Your task to perform on an android device: set default search engine in the chrome app Image 0: 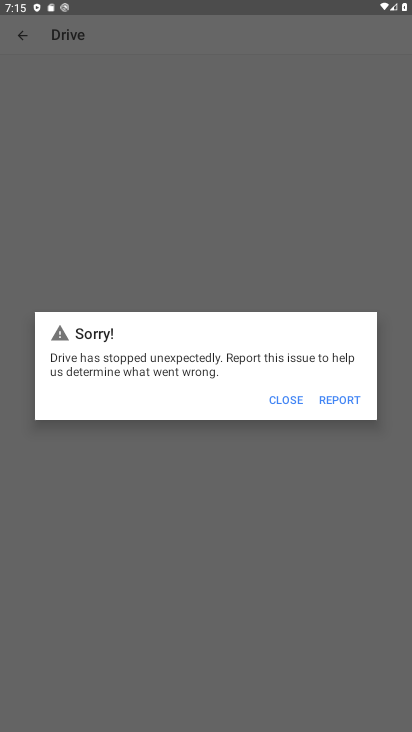
Step 0: press home button
Your task to perform on an android device: set default search engine in the chrome app Image 1: 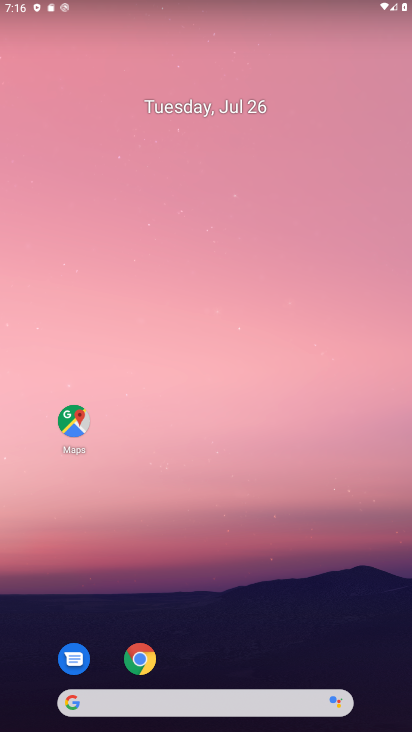
Step 1: click (149, 661)
Your task to perform on an android device: set default search engine in the chrome app Image 2: 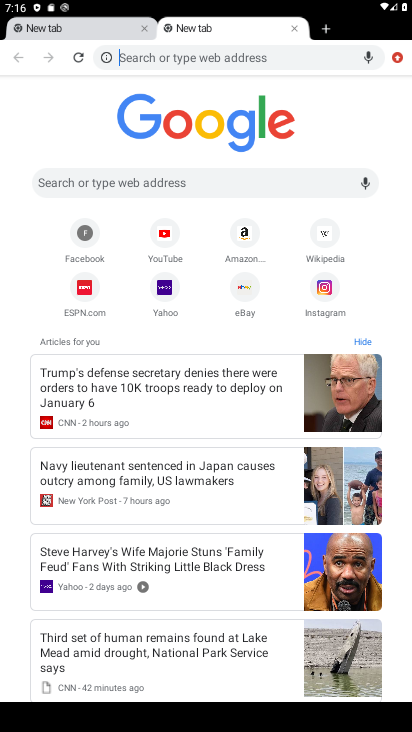
Step 2: click (396, 54)
Your task to perform on an android device: set default search engine in the chrome app Image 3: 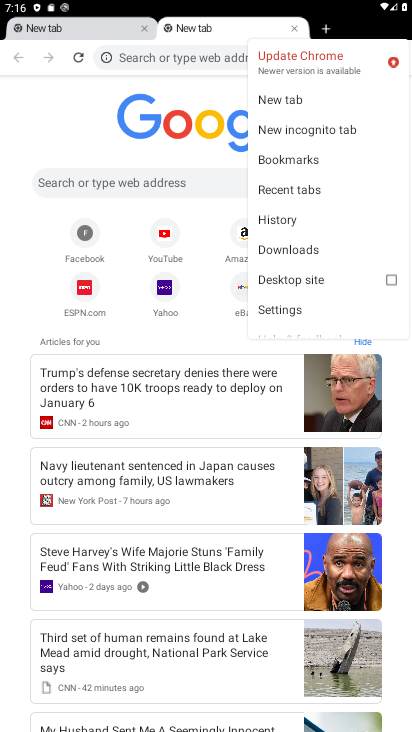
Step 3: click (290, 310)
Your task to perform on an android device: set default search engine in the chrome app Image 4: 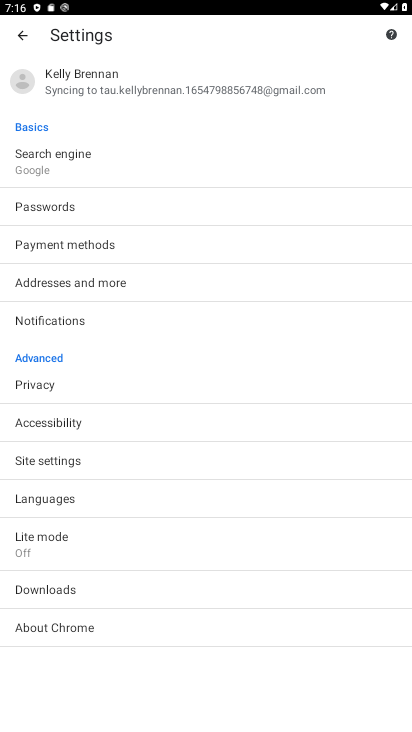
Step 4: click (18, 153)
Your task to perform on an android device: set default search engine in the chrome app Image 5: 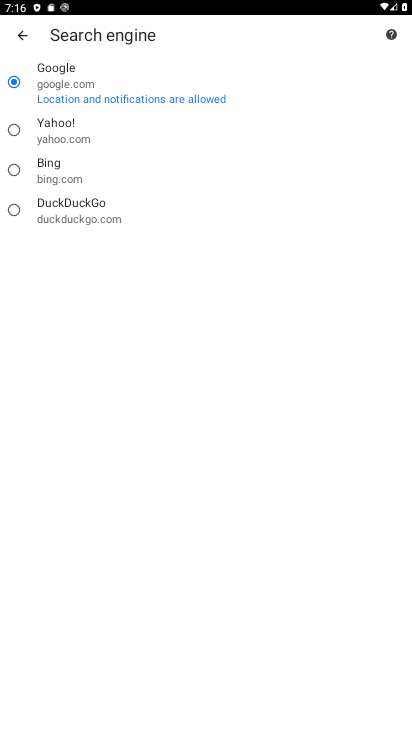
Step 5: task complete